Your task to perform on an android device: change the clock display to show seconds Image 0: 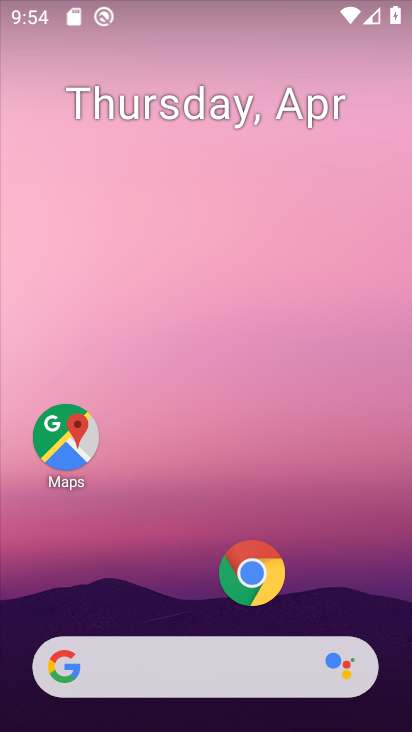
Step 0: drag from (194, 514) to (203, 91)
Your task to perform on an android device: change the clock display to show seconds Image 1: 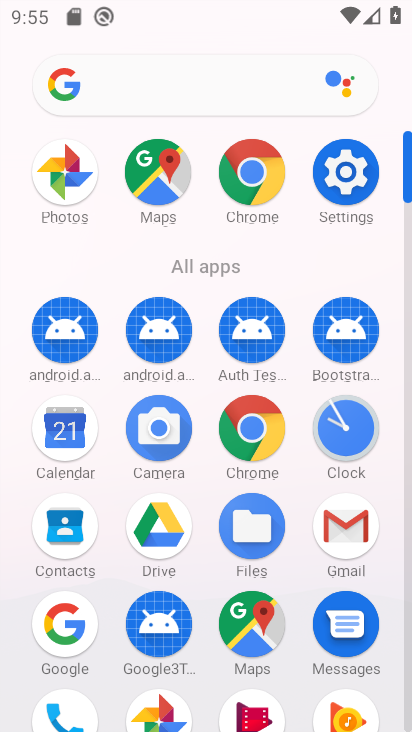
Step 1: click (342, 414)
Your task to perform on an android device: change the clock display to show seconds Image 2: 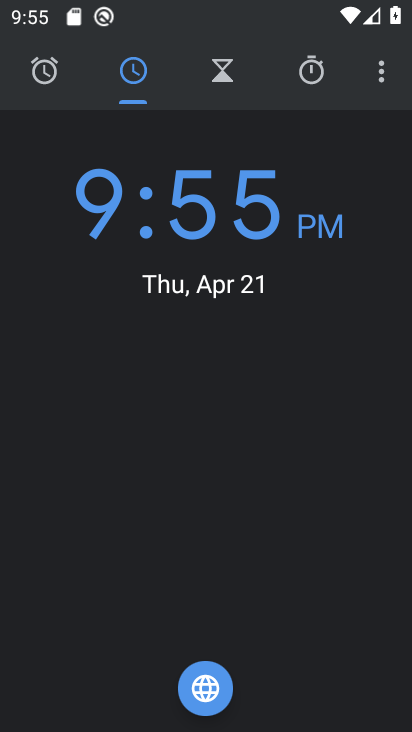
Step 2: click (377, 74)
Your task to perform on an android device: change the clock display to show seconds Image 3: 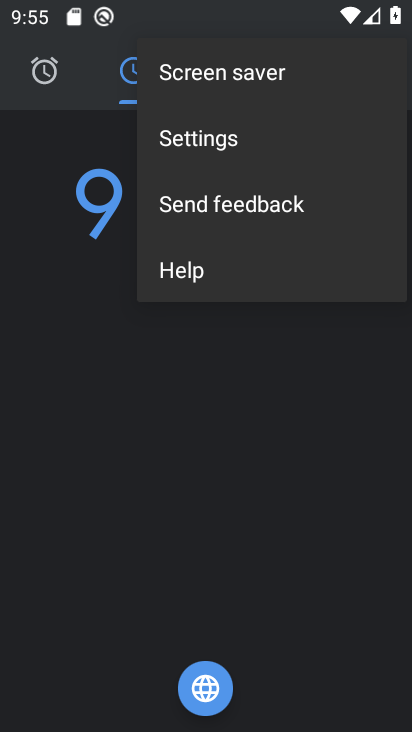
Step 3: click (261, 137)
Your task to perform on an android device: change the clock display to show seconds Image 4: 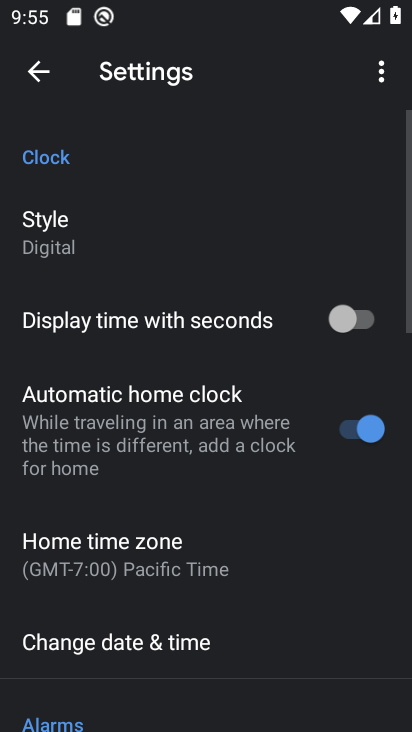
Step 4: click (355, 321)
Your task to perform on an android device: change the clock display to show seconds Image 5: 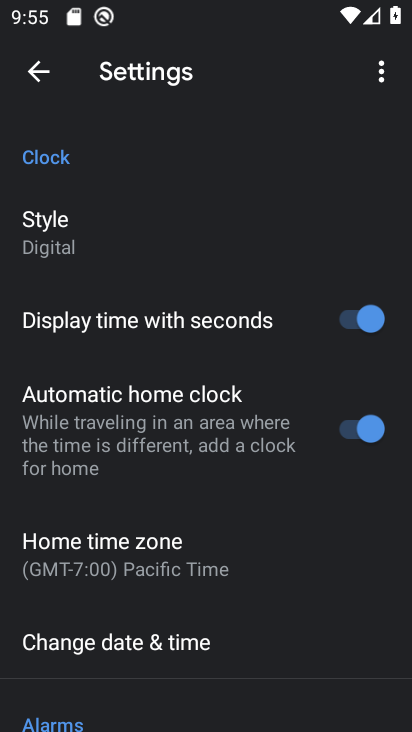
Step 5: task complete